Your task to perform on an android device: Open Google Chrome Image 0: 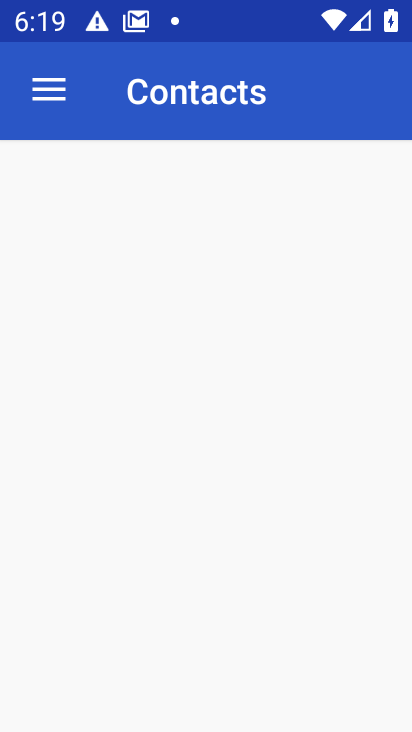
Step 0: drag from (183, 575) to (184, 60)
Your task to perform on an android device: Open Google Chrome Image 1: 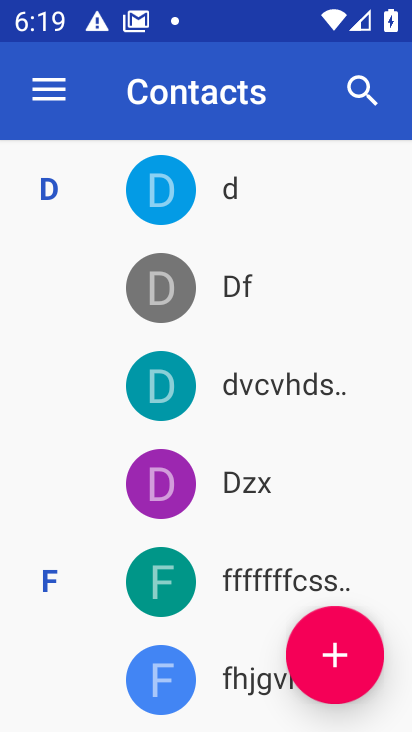
Step 1: task complete